Your task to perform on an android device: Go to location settings Image 0: 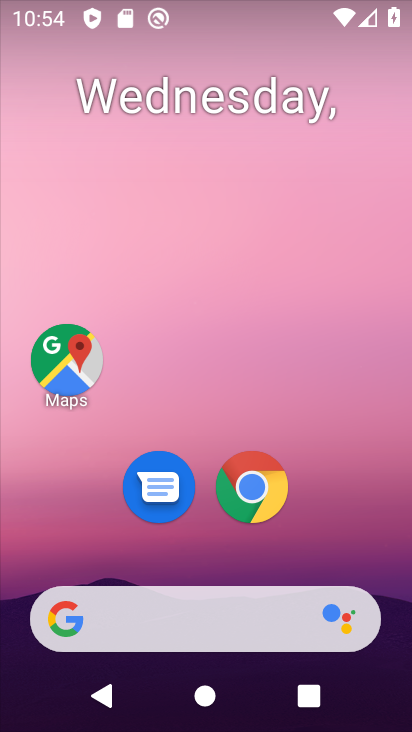
Step 0: drag from (319, 550) to (314, 69)
Your task to perform on an android device: Go to location settings Image 1: 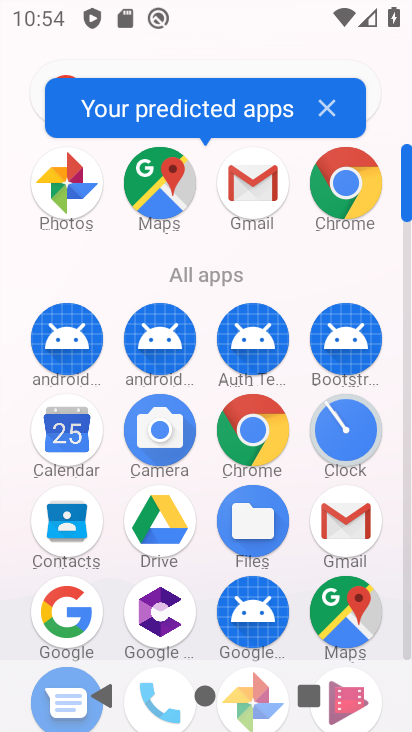
Step 1: drag from (203, 579) to (259, 157)
Your task to perform on an android device: Go to location settings Image 2: 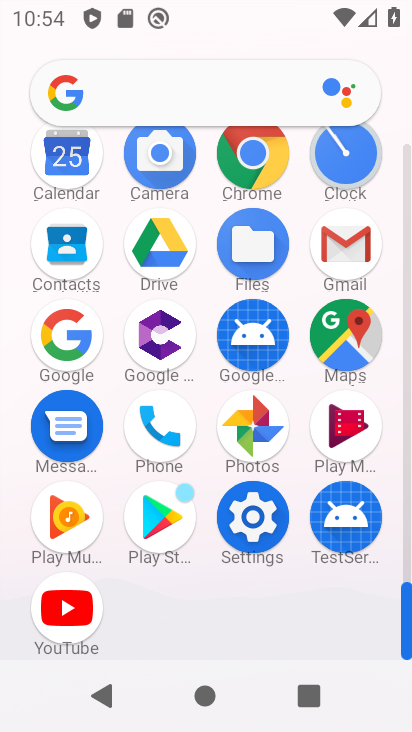
Step 2: click (257, 522)
Your task to perform on an android device: Go to location settings Image 3: 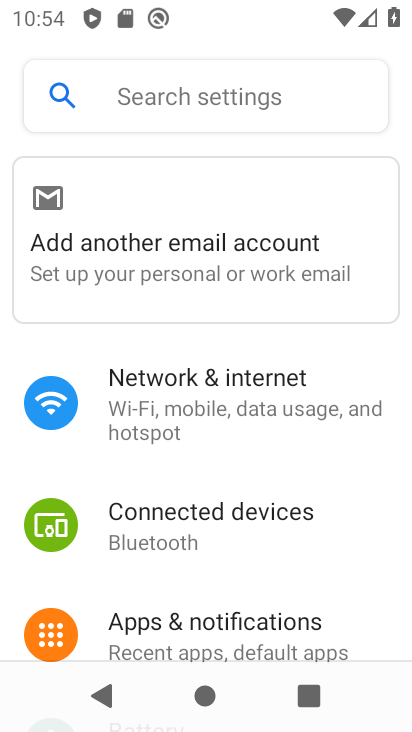
Step 3: drag from (196, 581) to (278, 38)
Your task to perform on an android device: Go to location settings Image 4: 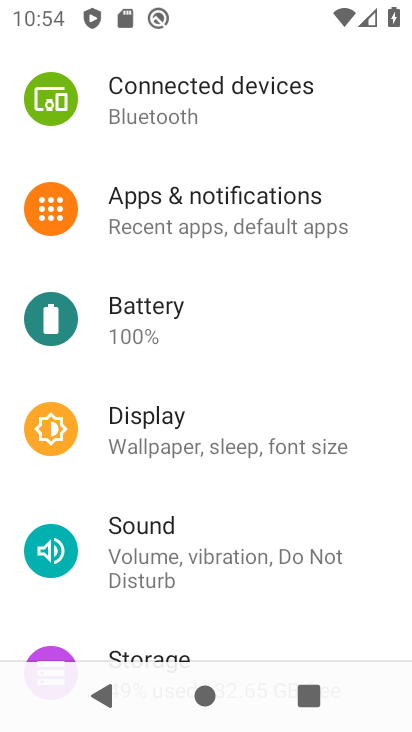
Step 4: drag from (210, 567) to (240, 122)
Your task to perform on an android device: Go to location settings Image 5: 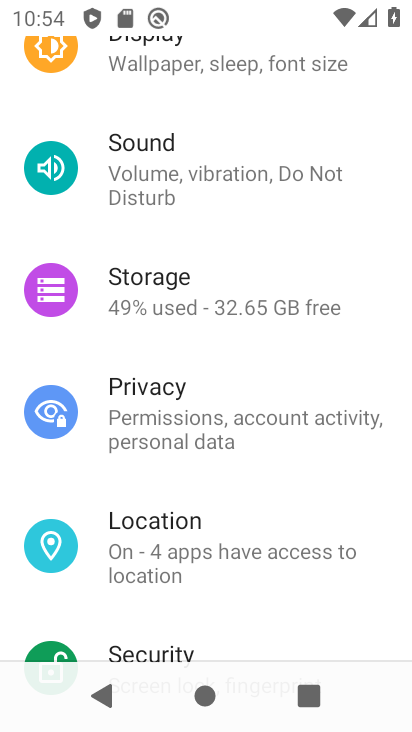
Step 5: click (177, 535)
Your task to perform on an android device: Go to location settings Image 6: 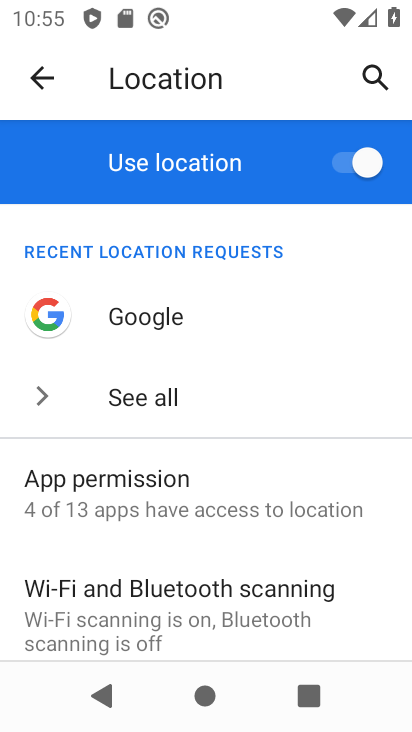
Step 6: task complete